Your task to perform on an android device: turn on airplane mode Image 0: 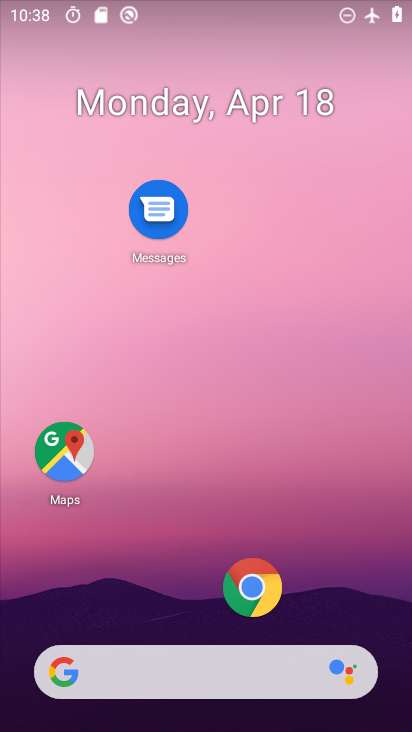
Step 0: drag from (173, 577) to (305, 14)
Your task to perform on an android device: turn on airplane mode Image 1: 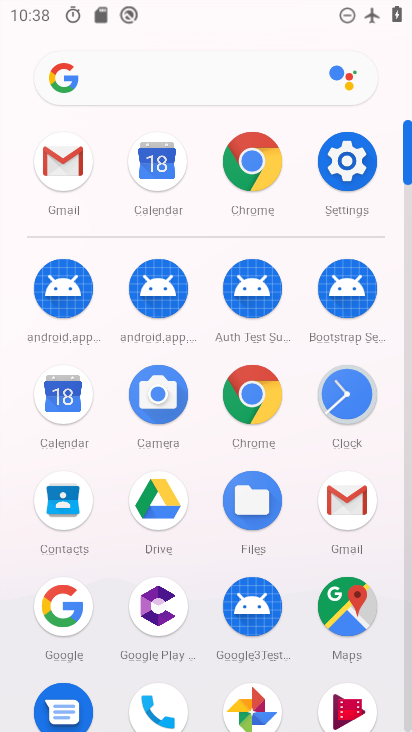
Step 1: click (341, 188)
Your task to perform on an android device: turn on airplane mode Image 2: 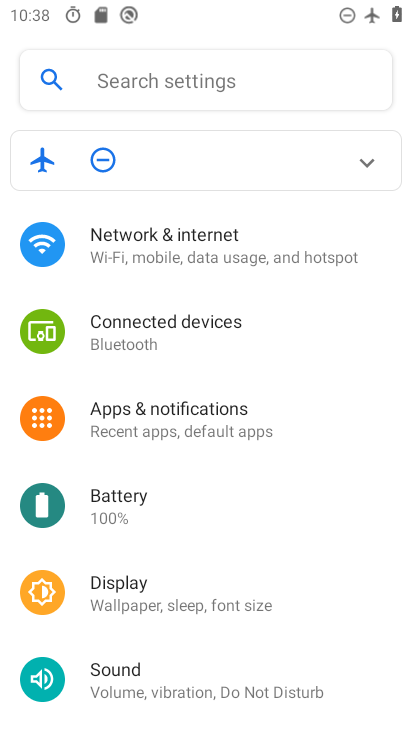
Step 2: click (189, 255)
Your task to perform on an android device: turn on airplane mode Image 3: 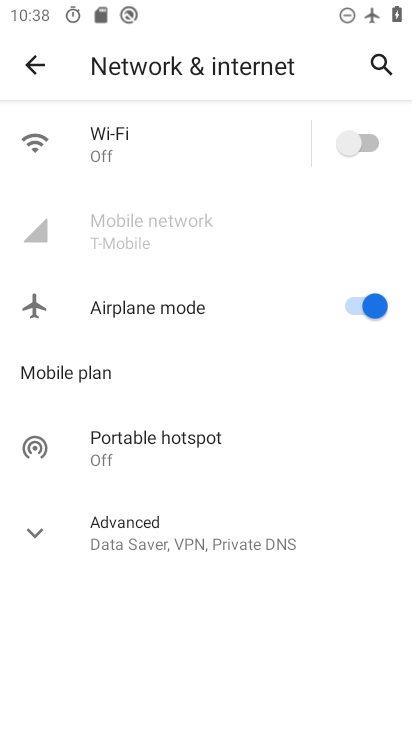
Step 3: task complete